Your task to perform on an android device: Turn on the flashlight Image 0: 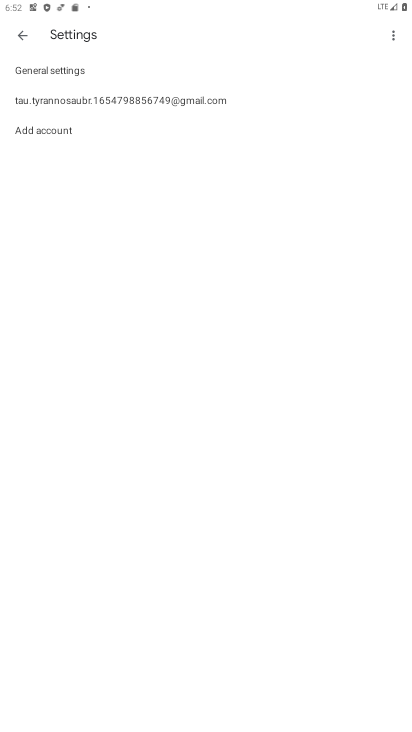
Step 0: press home button
Your task to perform on an android device: Turn on the flashlight Image 1: 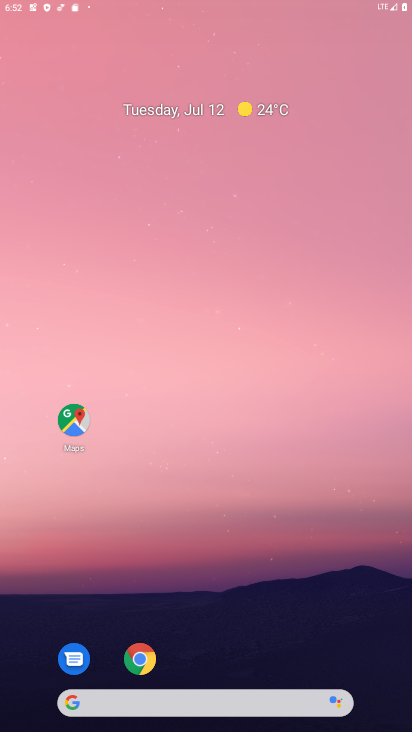
Step 1: drag from (360, 526) to (279, 3)
Your task to perform on an android device: Turn on the flashlight Image 2: 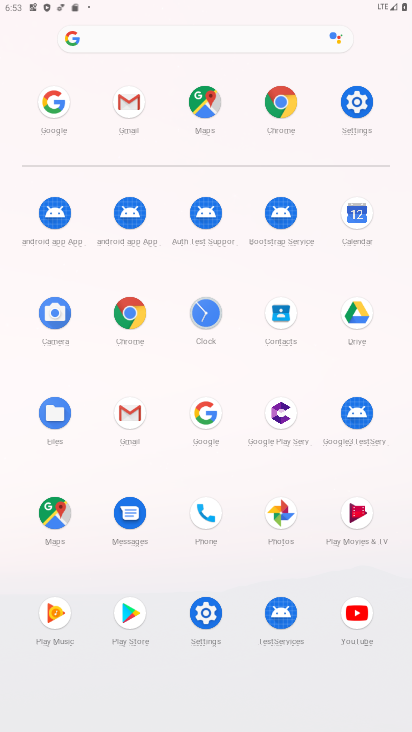
Step 2: click (344, 102)
Your task to perform on an android device: Turn on the flashlight Image 3: 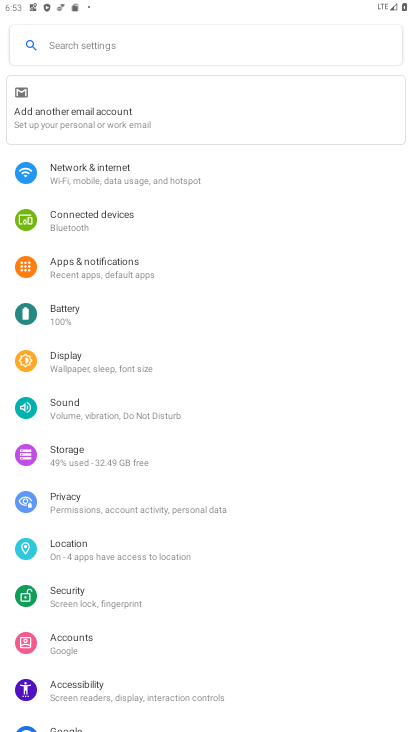
Step 3: task complete